Your task to perform on an android device: toggle data saver in the chrome app Image 0: 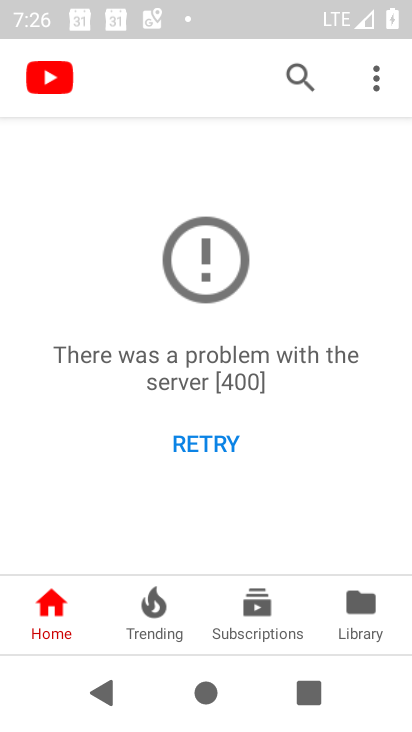
Step 0: press home button
Your task to perform on an android device: toggle data saver in the chrome app Image 1: 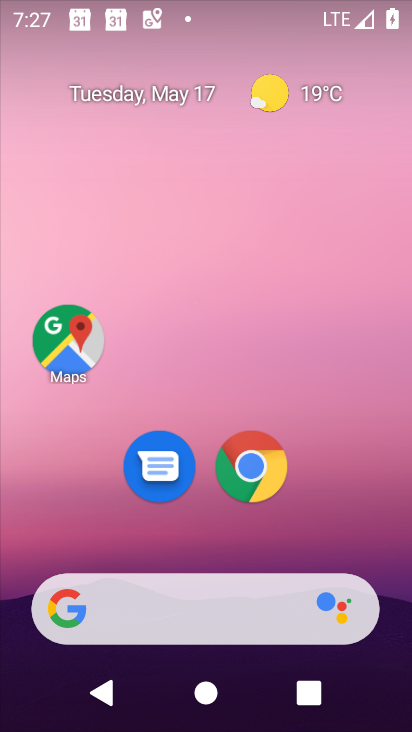
Step 1: click (264, 470)
Your task to perform on an android device: toggle data saver in the chrome app Image 2: 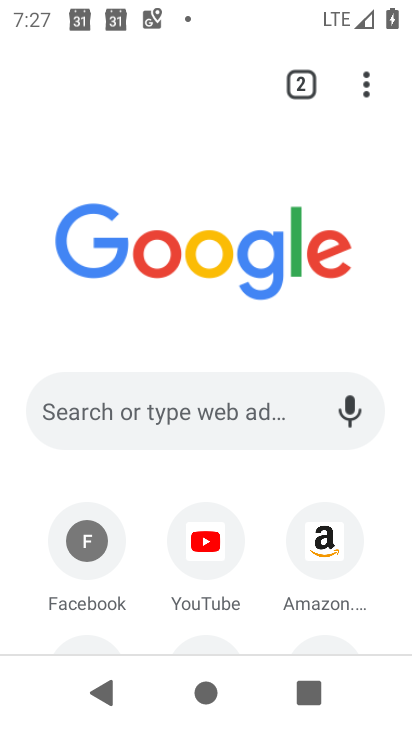
Step 2: drag from (361, 93) to (217, 519)
Your task to perform on an android device: toggle data saver in the chrome app Image 3: 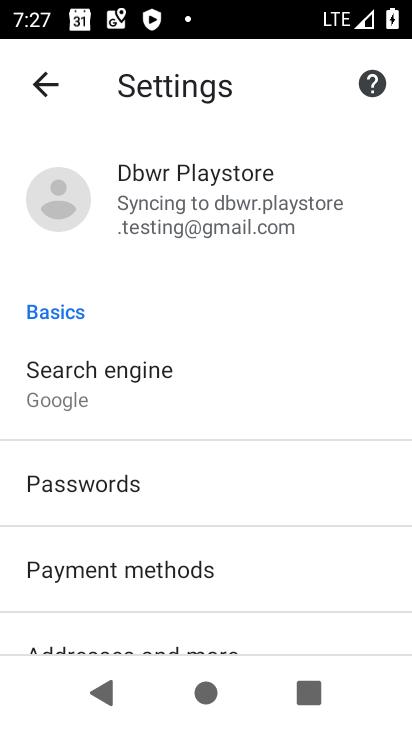
Step 3: drag from (172, 600) to (296, 239)
Your task to perform on an android device: toggle data saver in the chrome app Image 4: 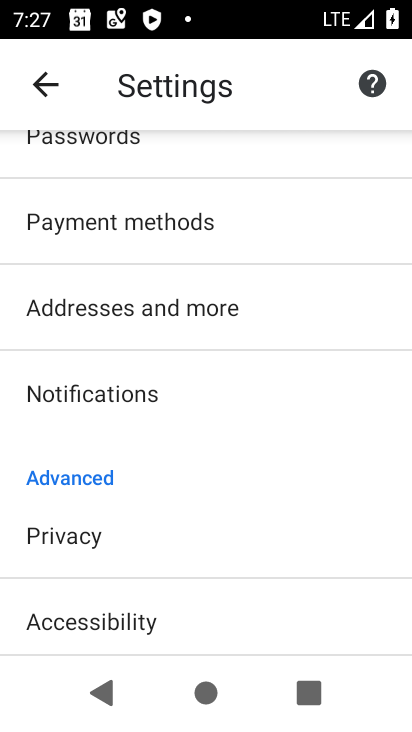
Step 4: drag from (174, 552) to (299, 281)
Your task to perform on an android device: toggle data saver in the chrome app Image 5: 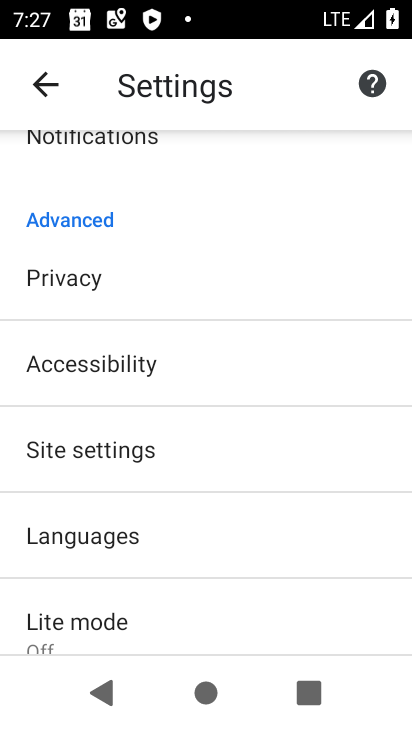
Step 5: click (134, 614)
Your task to perform on an android device: toggle data saver in the chrome app Image 6: 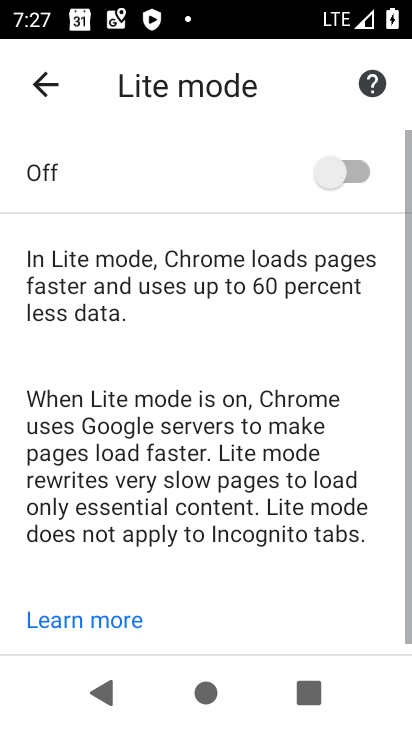
Step 6: click (359, 172)
Your task to perform on an android device: toggle data saver in the chrome app Image 7: 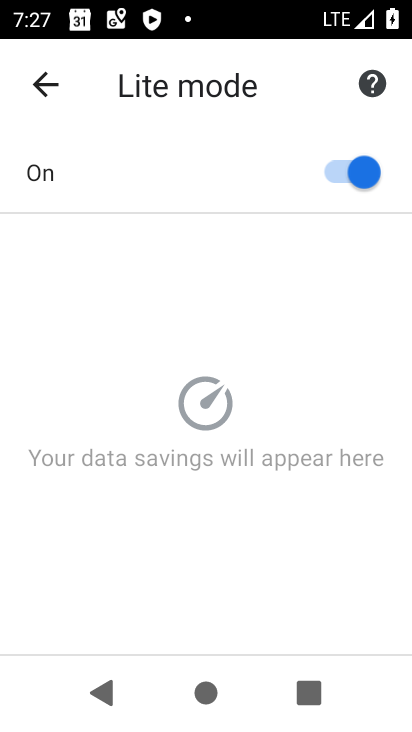
Step 7: task complete